Your task to perform on an android device: open a new tab in the chrome app Image 0: 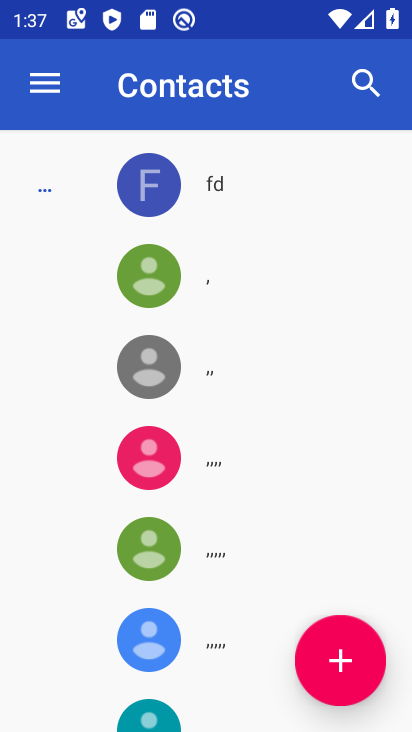
Step 0: press home button
Your task to perform on an android device: open a new tab in the chrome app Image 1: 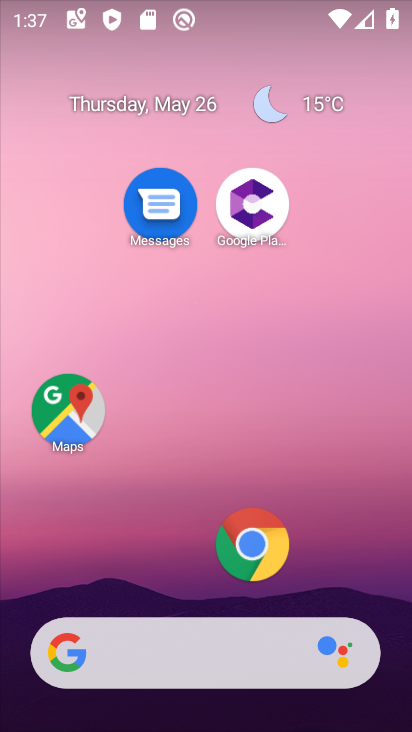
Step 1: click (319, 107)
Your task to perform on an android device: open a new tab in the chrome app Image 2: 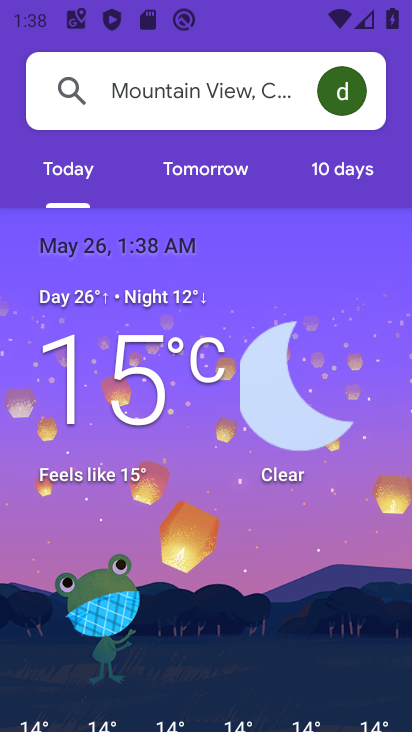
Step 2: press home button
Your task to perform on an android device: open a new tab in the chrome app Image 3: 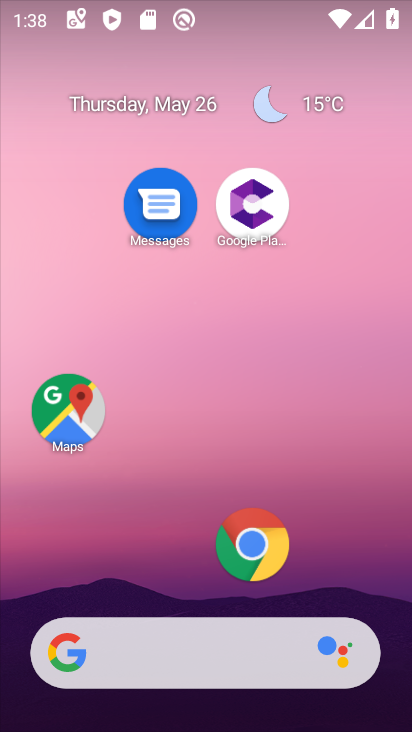
Step 3: click (258, 559)
Your task to perform on an android device: open a new tab in the chrome app Image 4: 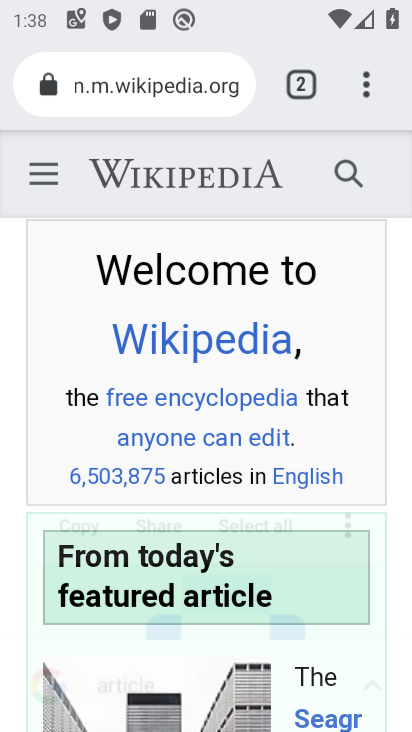
Step 4: click (290, 79)
Your task to perform on an android device: open a new tab in the chrome app Image 5: 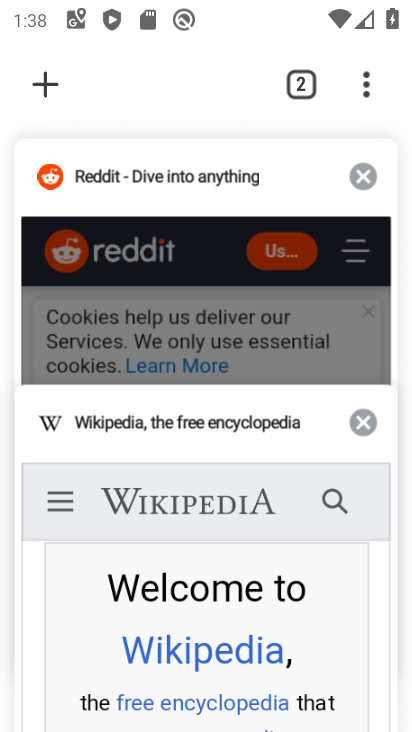
Step 5: click (39, 79)
Your task to perform on an android device: open a new tab in the chrome app Image 6: 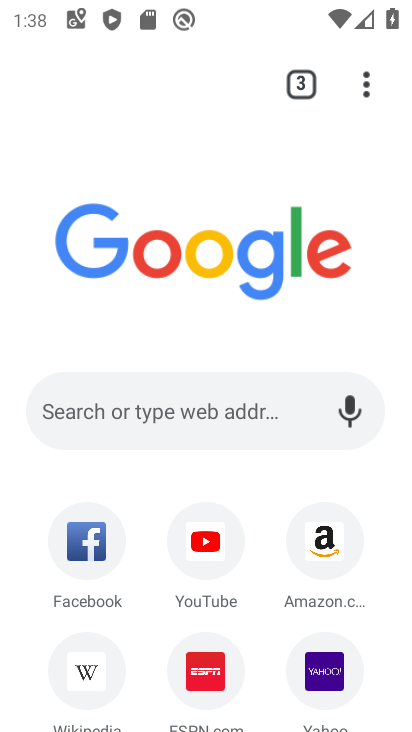
Step 6: task complete